Your task to perform on an android device: Show me productivity apps on the Play Store Image 0: 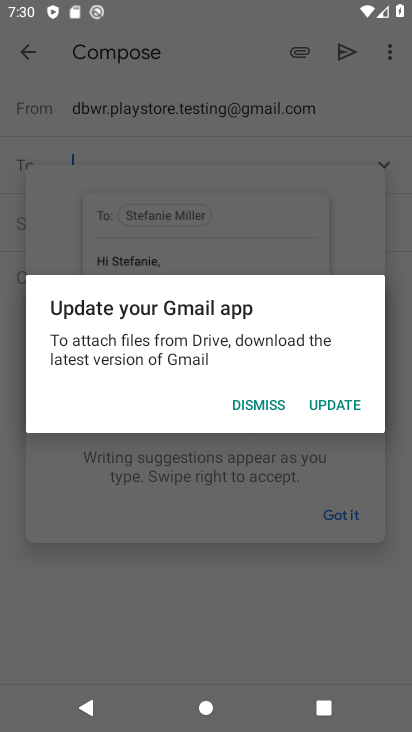
Step 0: press home button
Your task to perform on an android device: Show me productivity apps on the Play Store Image 1: 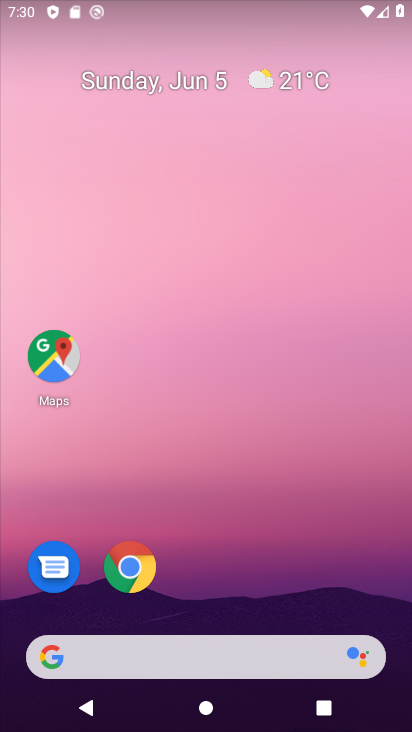
Step 1: drag from (195, 621) to (208, 255)
Your task to perform on an android device: Show me productivity apps on the Play Store Image 2: 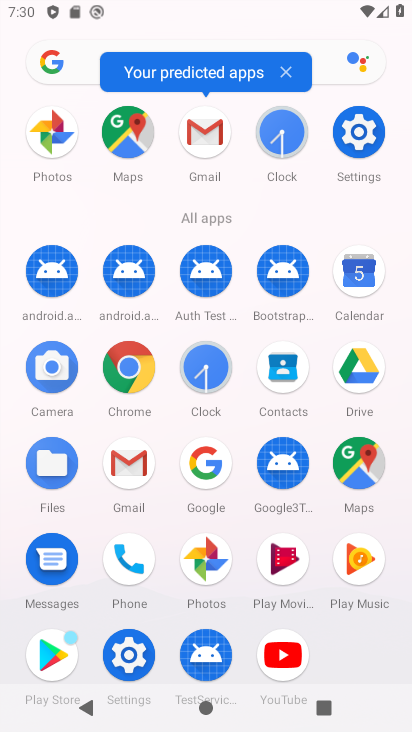
Step 2: click (48, 663)
Your task to perform on an android device: Show me productivity apps on the Play Store Image 3: 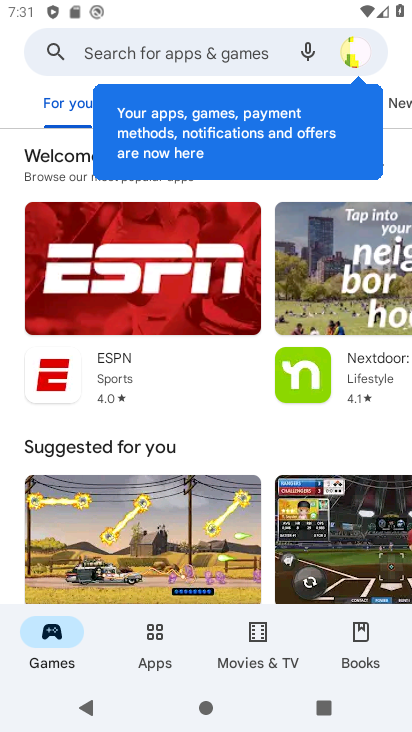
Step 3: drag from (168, 402) to (174, 366)
Your task to perform on an android device: Show me productivity apps on the Play Store Image 4: 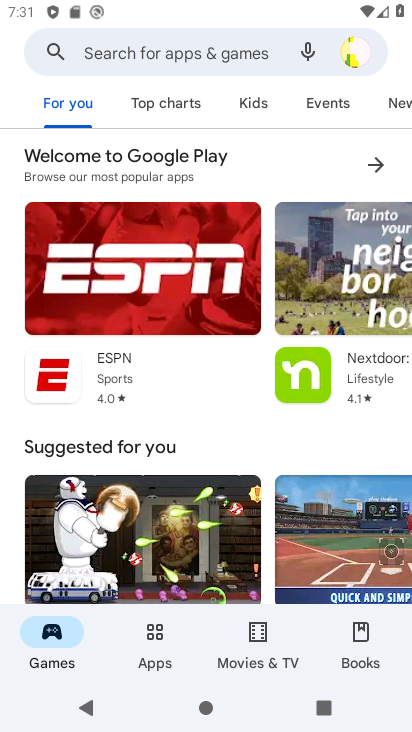
Step 4: click (139, 644)
Your task to perform on an android device: Show me productivity apps on the Play Store Image 5: 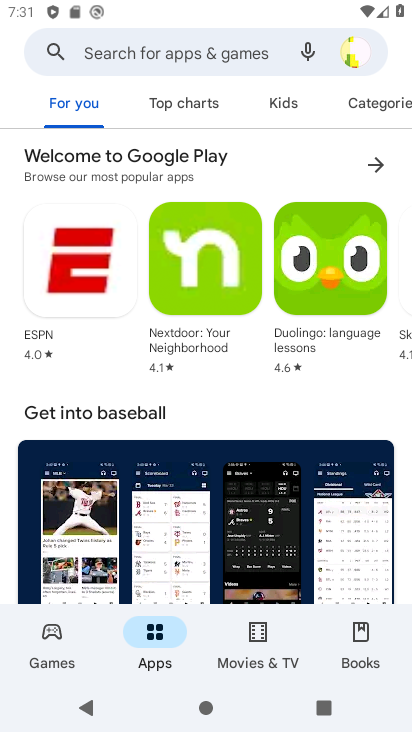
Step 5: task complete